Your task to perform on an android device: turn off data saver in the chrome app Image 0: 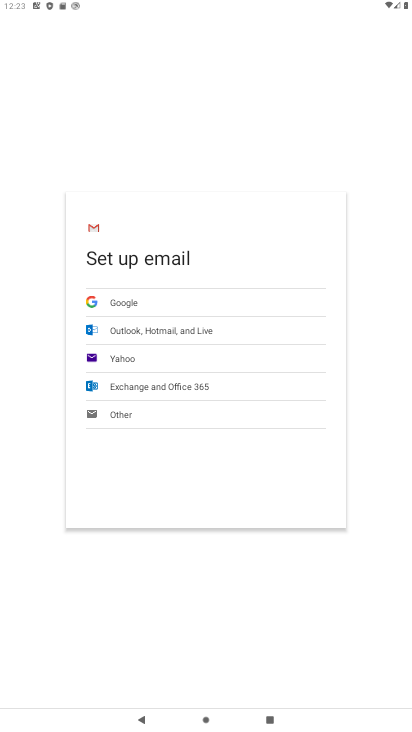
Step 0: press home button
Your task to perform on an android device: turn off data saver in the chrome app Image 1: 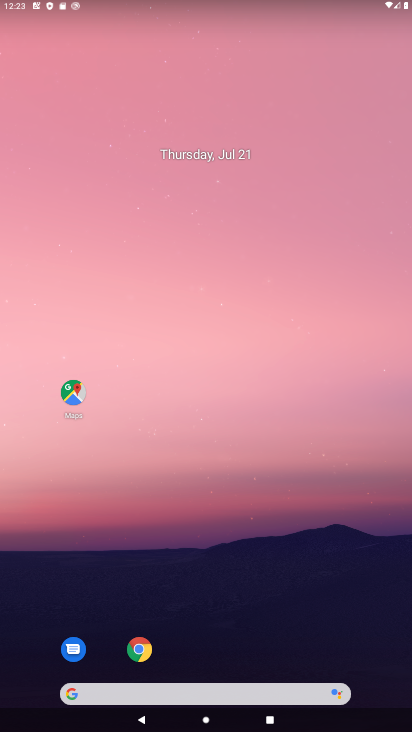
Step 1: click (141, 649)
Your task to perform on an android device: turn off data saver in the chrome app Image 2: 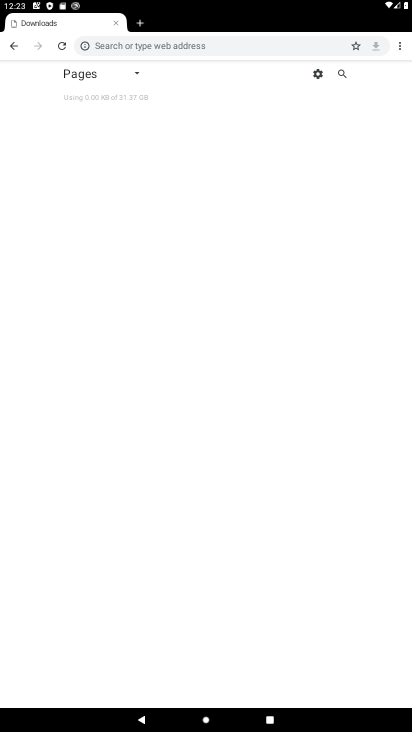
Step 2: click (399, 45)
Your task to perform on an android device: turn off data saver in the chrome app Image 3: 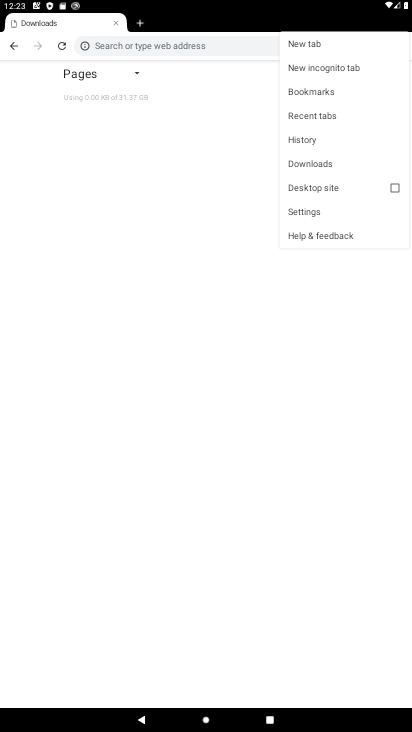
Step 3: click (306, 209)
Your task to perform on an android device: turn off data saver in the chrome app Image 4: 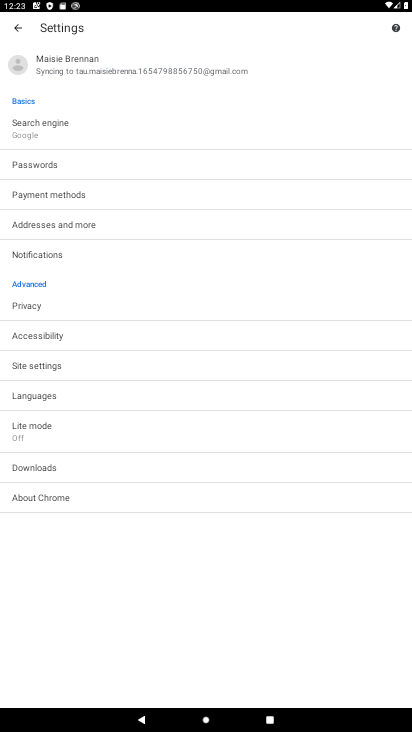
Step 4: click (31, 427)
Your task to perform on an android device: turn off data saver in the chrome app Image 5: 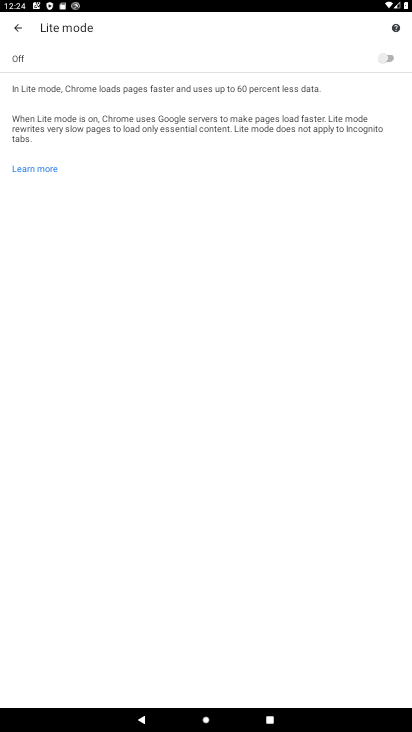
Step 5: task complete